Your task to perform on an android device: set an alarm Image 0: 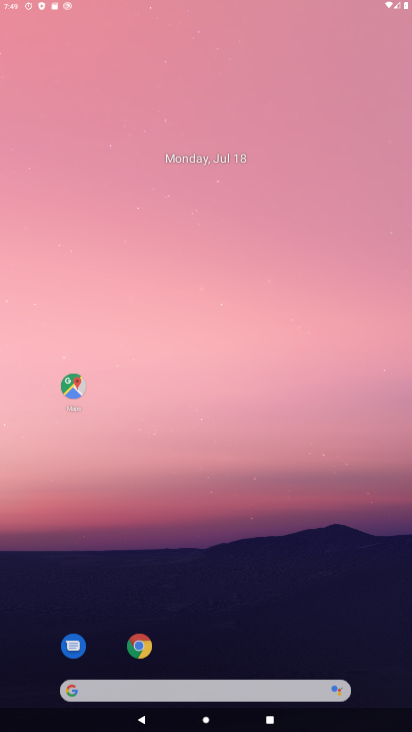
Step 0: click (231, 130)
Your task to perform on an android device: set an alarm Image 1: 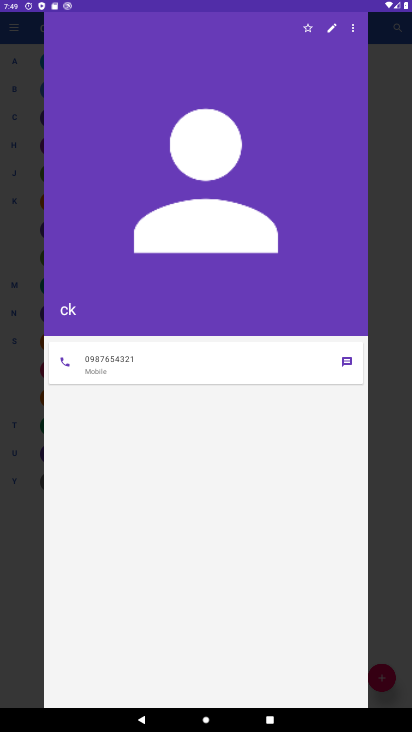
Step 1: press home button
Your task to perform on an android device: set an alarm Image 2: 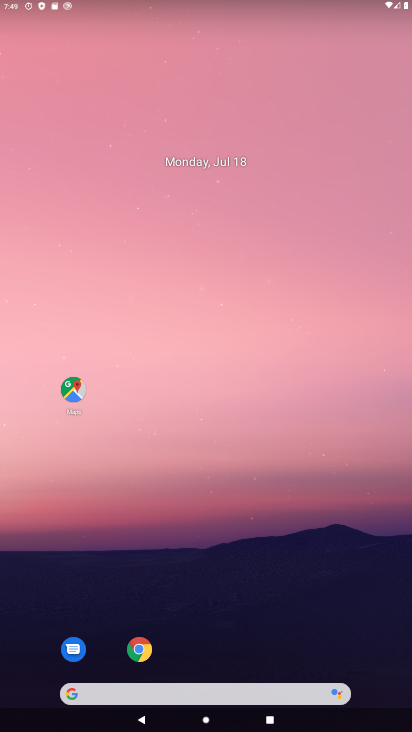
Step 2: drag from (265, 559) to (221, 47)
Your task to perform on an android device: set an alarm Image 3: 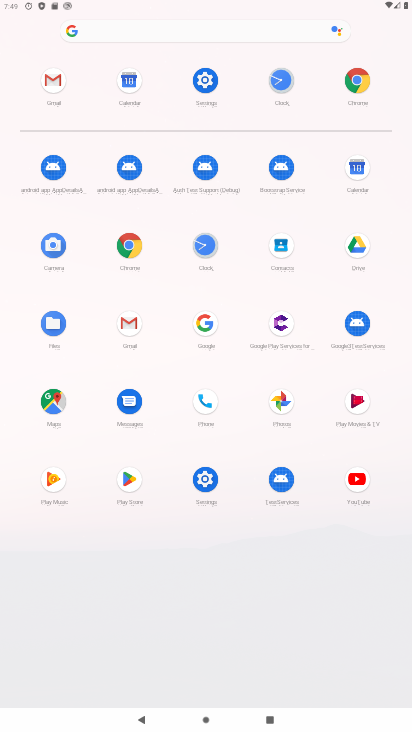
Step 3: click (205, 252)
Your task to perform on an android device: set an alarm Image 4: 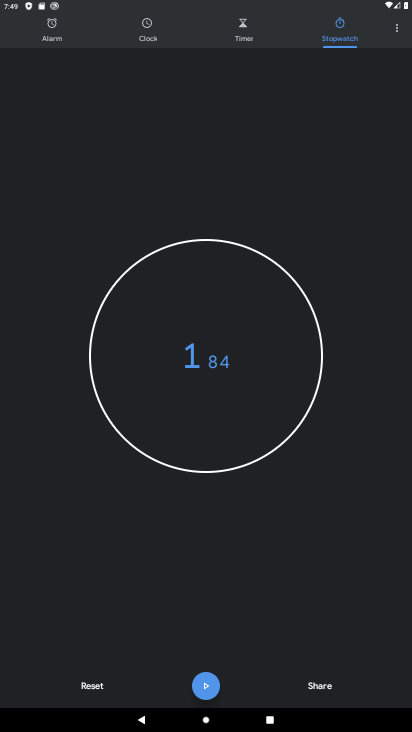
Step 4: click (52, 22)
Your task to perform on an android device: set an alarm Image 5: 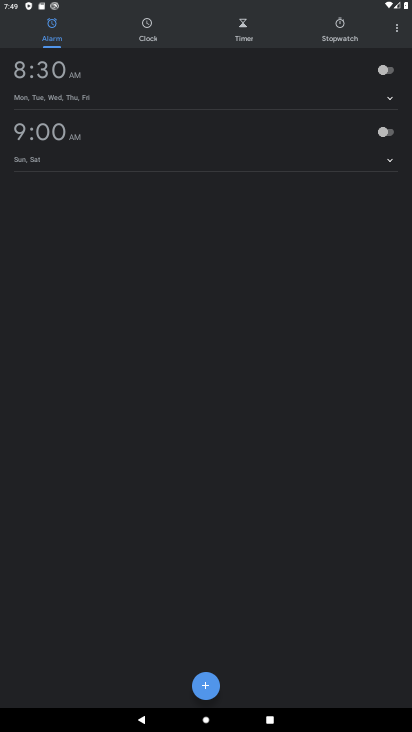
Step 5: click (212, 686)
Your task to perform on an android device: set an alarm Image 6: 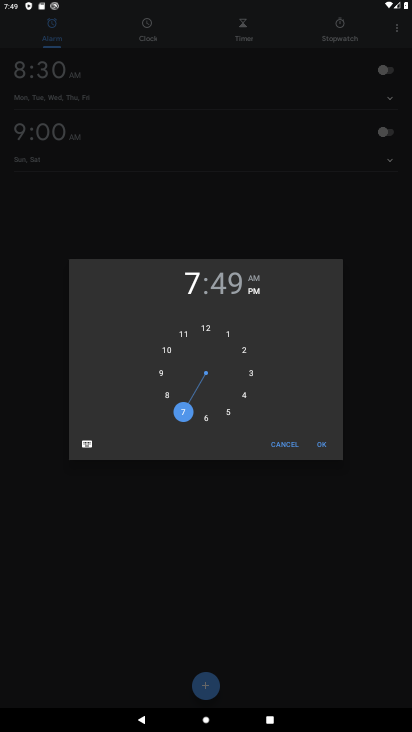
Step 6: click (320, 448)
Your task to perform on an android device: set an alarm Image 7: 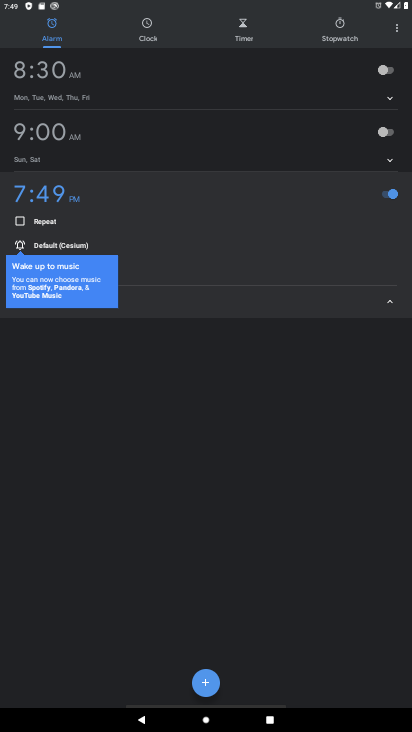
Step 7: task complete